Your task to perform on an android device: visit the assistant section in the google photos Image 0: 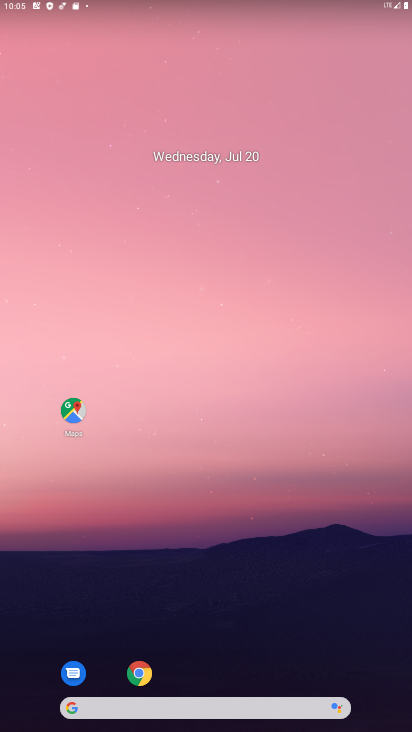
Step 0: drag from (186, 709) to (206, 234)
Your task to perform on an android device: visit the assistant section in the google photos Image 1: 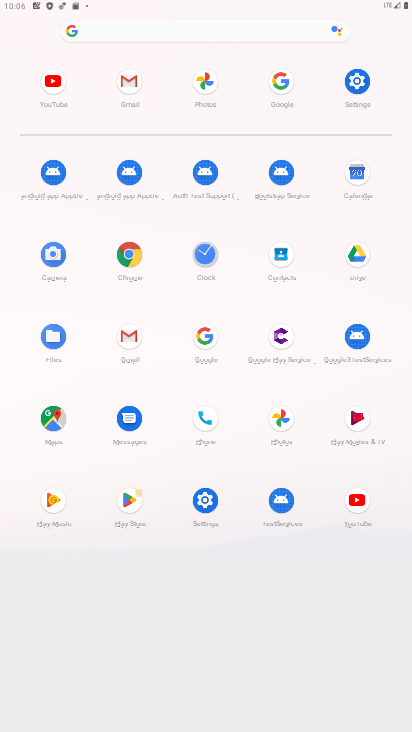
Step 1: click (205, 80)
Your task to perform on an android device: visit the assistant section in the google photos Image 2: 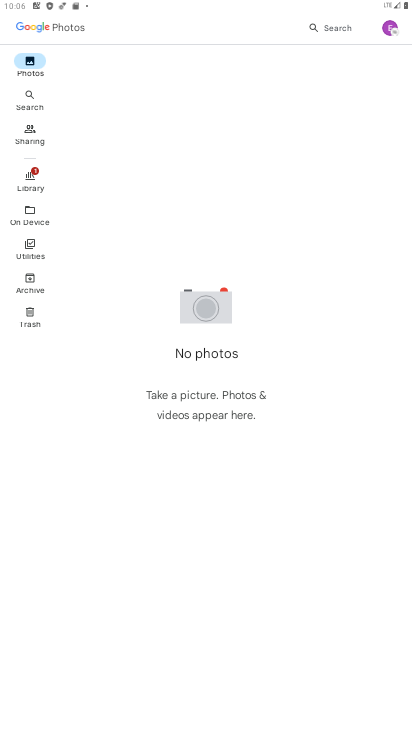
Step 2: click (27, 258)
Your task to perform on an android device: visit the assistant section in the google photos Image 3: 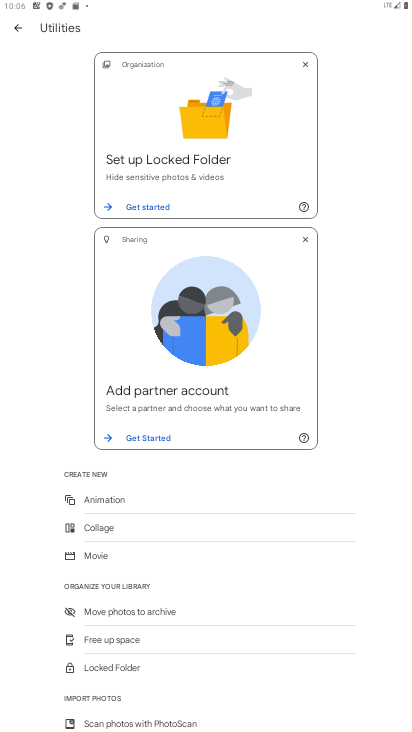
Step 3: drag from (154, 577) to (164, 497)
Your task to perform on an android device: visit the assistant section in the google photos Image 4: 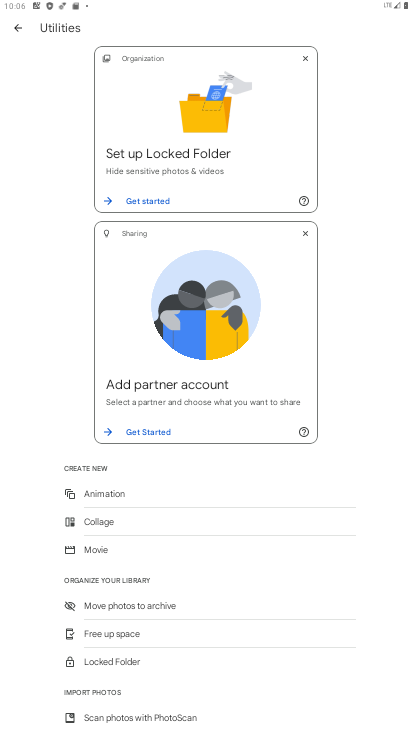
Step 4: click (104, 540)
Your task to perform on an android device: visit the assistant section in the google photos Image 5: 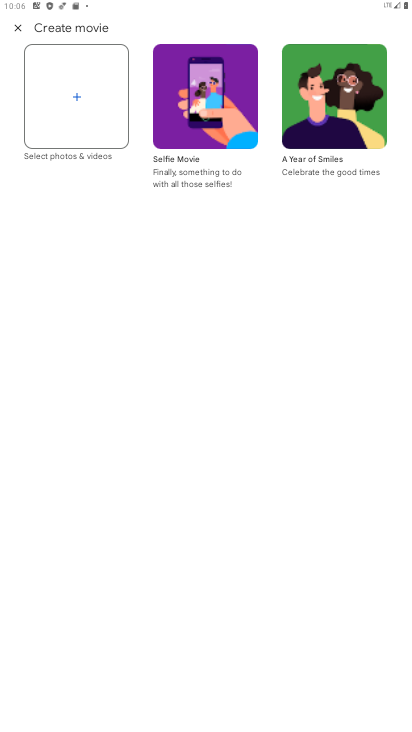
Step 5: task complete